Your task to perform on an android device: turn on priority inbox in the gmail app Image 0: 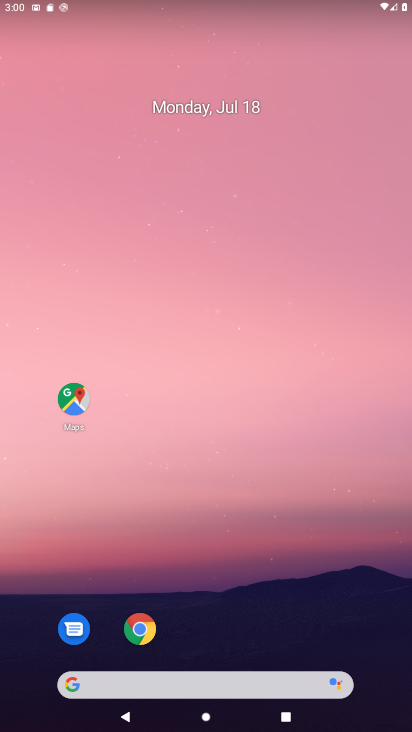
Step 0: drag from (340, 639) to (350, 73)
Your task to perform on an android device: turn on priority inbox in the gmail app Image 1: 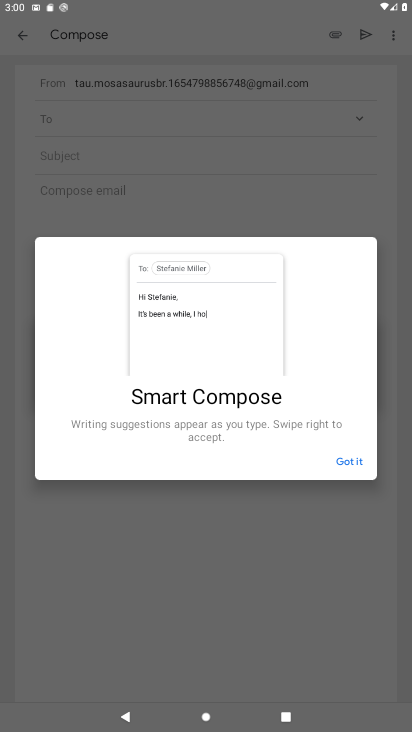
Step 1: press home button
Your task to perform on an android device: turn on priority inbox in the gmail app Image 2: 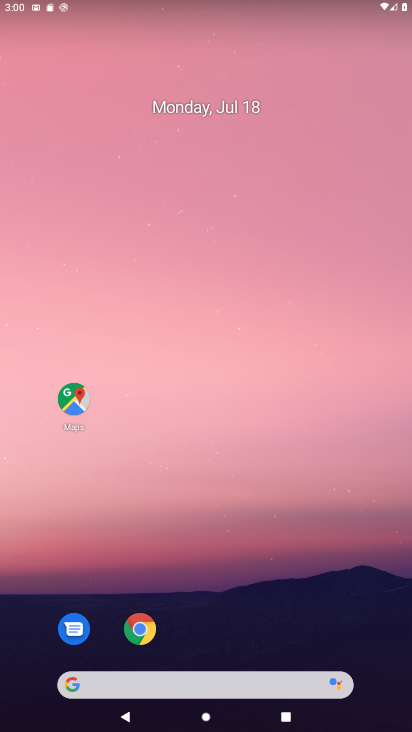
Step 2: drag from (316, 615) to (338, 124)
Your task to perform on an android device: turn on priority inbox in the gmail app Image 3: 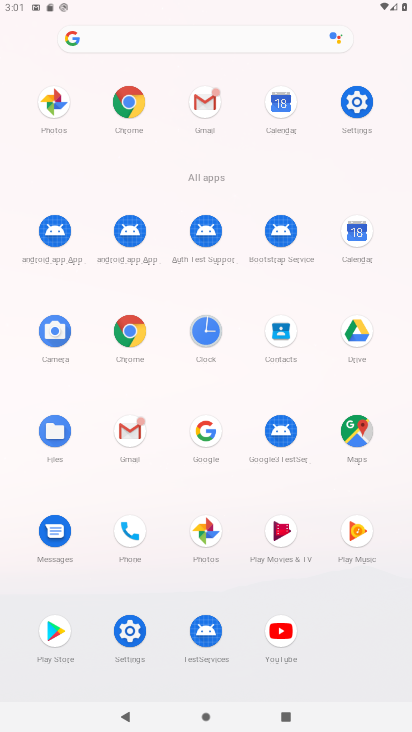
Step 3: click (128, 435)
Your task to perform on an android device: turn on priority inbox in the gmail app Image 4: 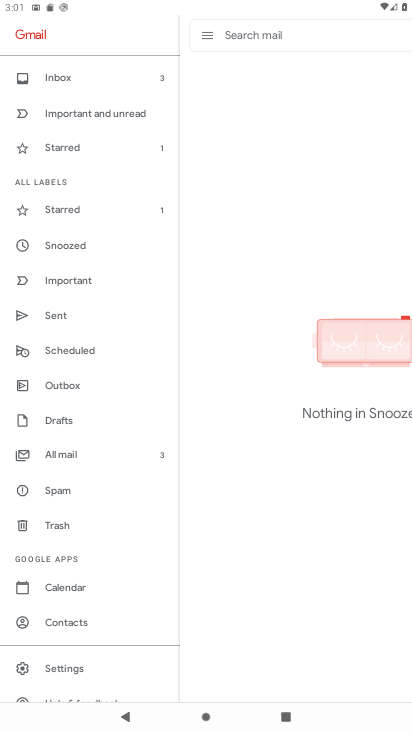
Step 4: click (72, 674)
Your task to perform on an android device: turn on priority inbox in the gmail app Image 5: 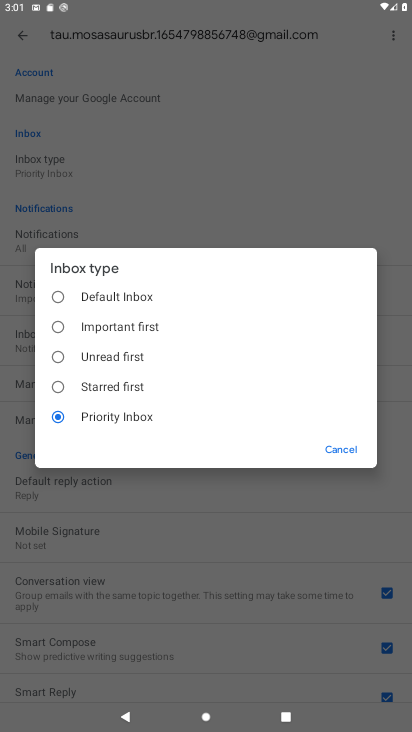
Step 5: task complete